Your task to perform on an android device: open chrome and create a bookmark for the current page Image 0: 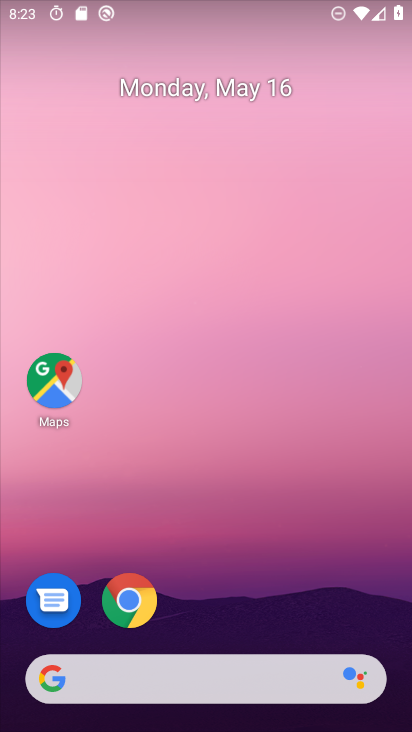
Step 0: click (137, 617)
Your task to perform on an android device: open chrome and create a bookmark for the current page Image 1: 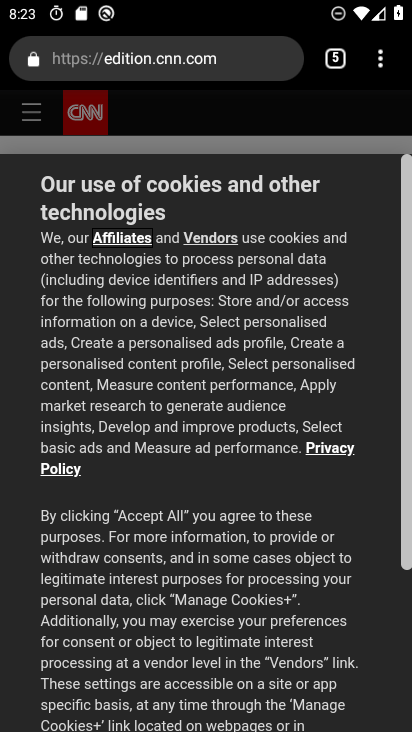
Step 1: click (371, 81)
Your task to perform on an android device: open chrome and create a bookmark for the current page Image 2: 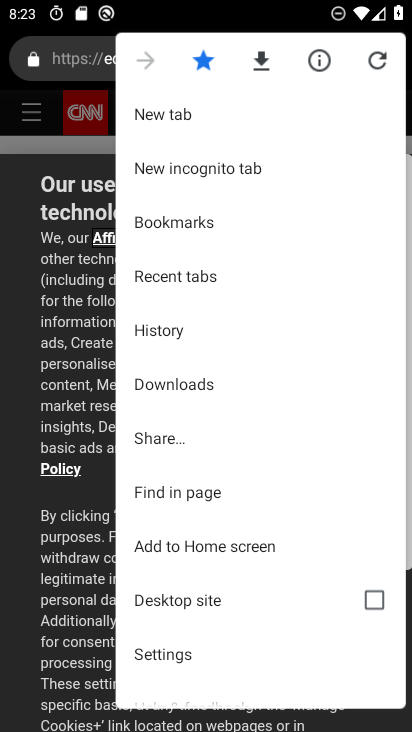
Step 2: task complete